Your task to perform on an android device: Open maps Image 0: 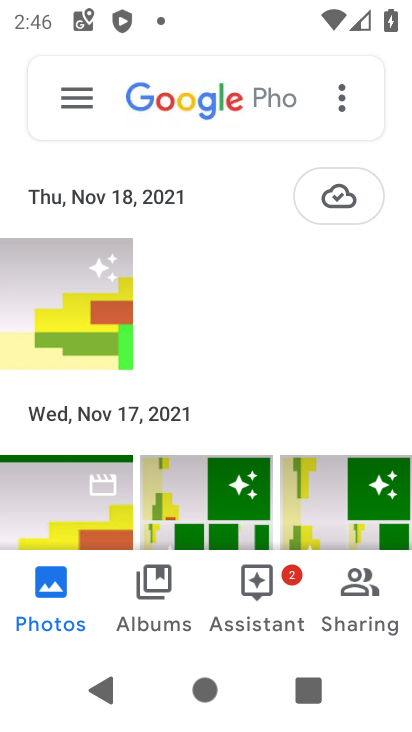
Step 0: press home button
Your task to perform on an android device: Open maps Image 1: 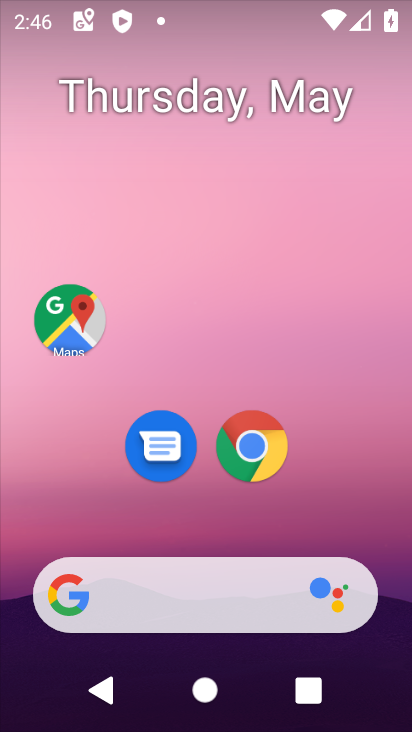
Step 1: drag from (276, 508) to (264, 8)
Your task to perform on an android device: Open maps Image 2: 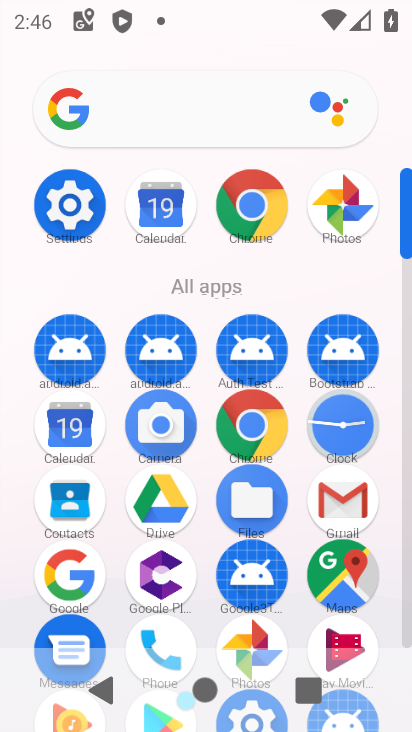
Step 2: click (341, 570)
Your task to perform on an android device: Open maps Image 3: 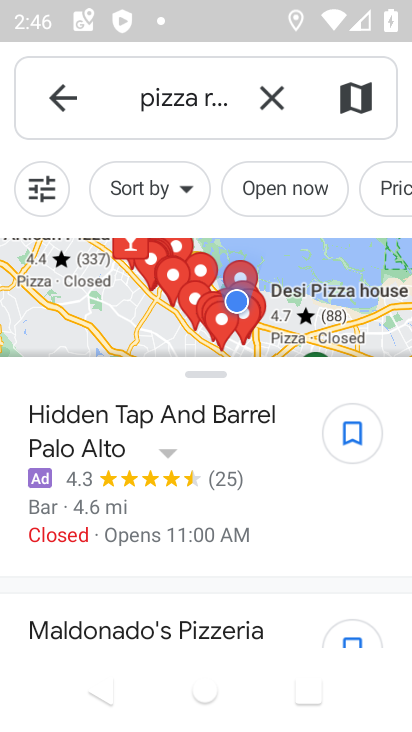
Step 3: click (46, 100)
Your task to perform on an android device: Open maps Image 4: 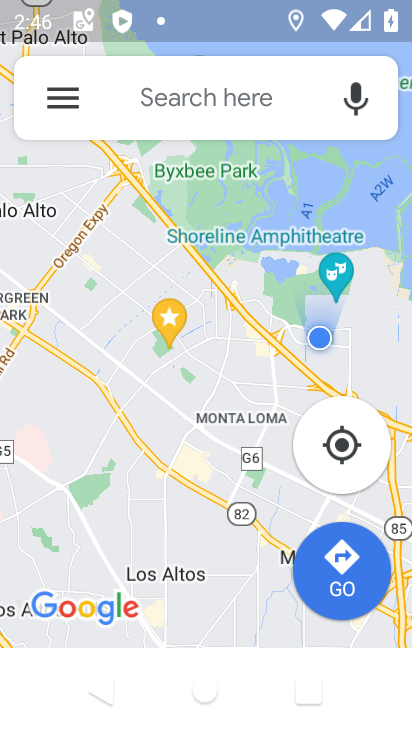
Step 4: task complete